Your task to perform on an android device: Open Google Chrome and open the bookmarks view Image 0: 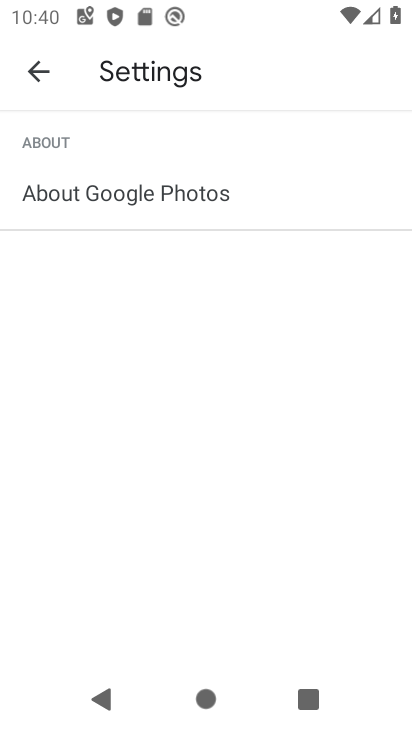
Step 0: press home button
Your task to perform on an android device: Open Google Chrome and open the bookmarks view Image 1: 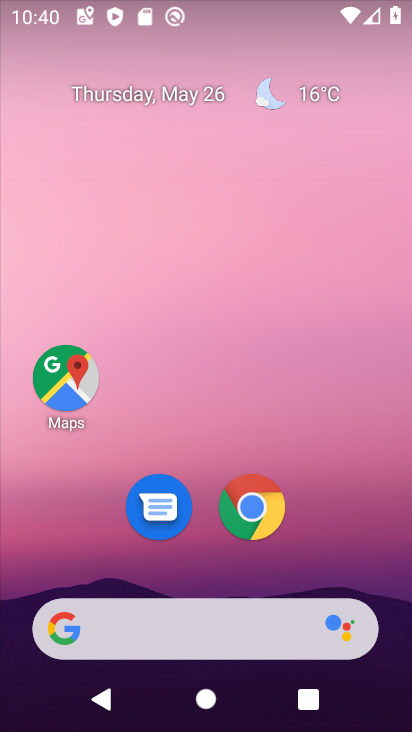
Step 1: click (250, 502)
Your task to perform on an android device: Open Google Chrome and open the bookmarks view Image 2: 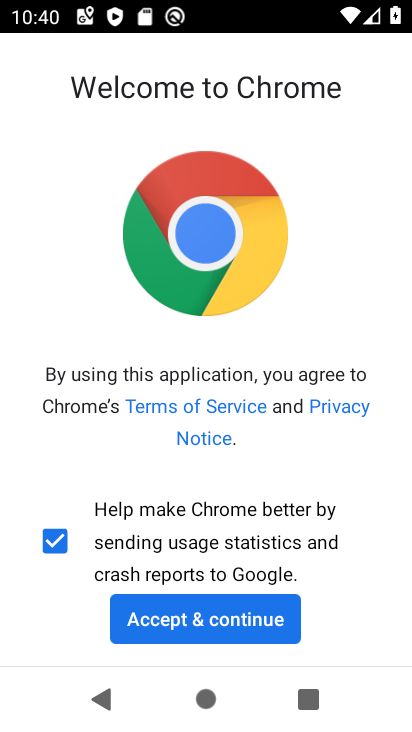
Step 2: click (221, 630)
Your task to perform on an android device: Open Google Chrome and open the bookmarks view Image 3: 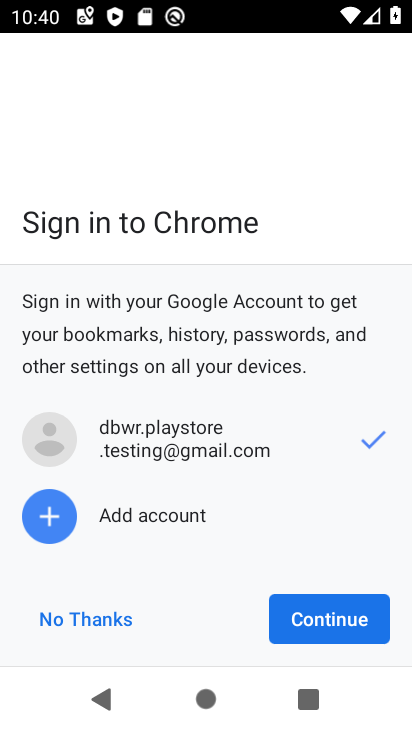
Step 3: click (309, 622)
Your task to perform on an android device: Open Google Chrome and open the bookmarks view Image 4: 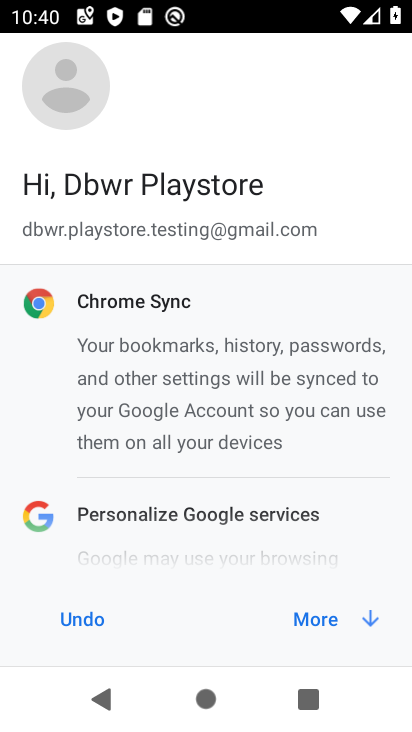
Step 4: click (329, 618)
Your task to perform on an android device: Open Google Chrome and open the bookmarks view Image 5: 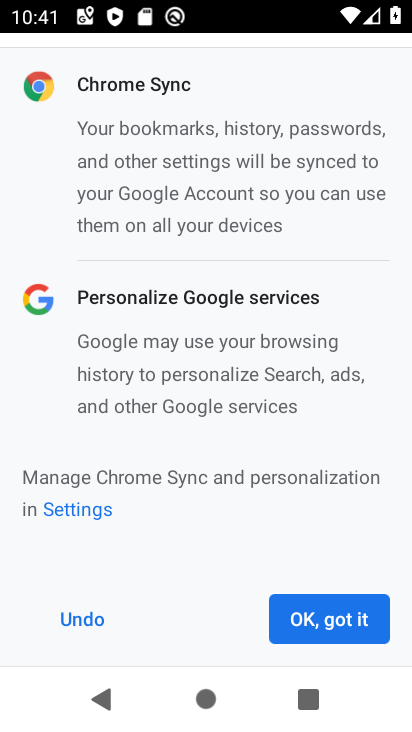
Step 5: click (335, 621)
Your task to perform on an android device: Open Google Chrome and open the bookmarks view Image 6: 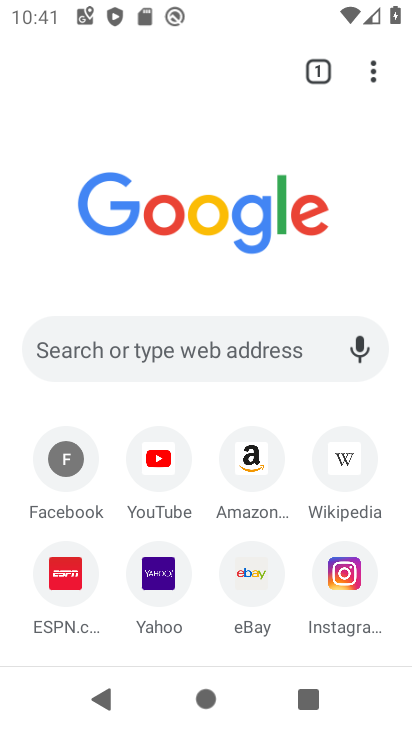
Step 6: click (374, 73)
Your task to perform on an android device: Open Google Chrome and open the bookmarks view Image 7: 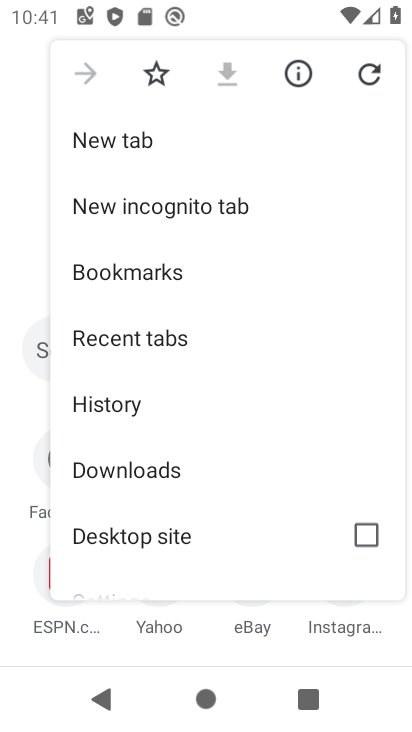
Step 7: click (162, 272)
Your task to perform on an android device: Open Google Chrome and open the bookmarks view Image 8: 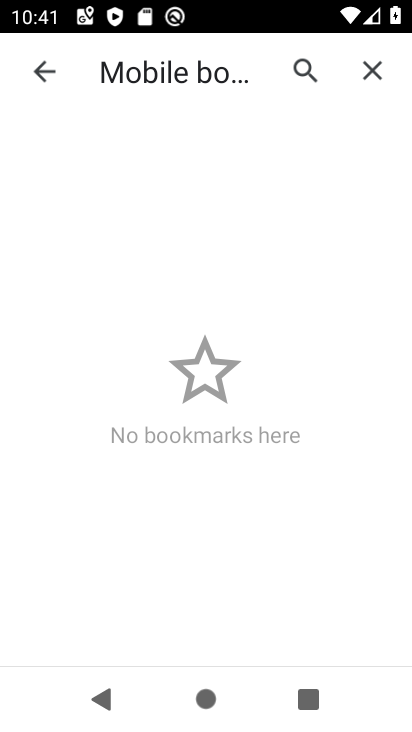
Step 8: task complete